Your task to perform on an android device: see tabs open on other devices in the chrome app Image 0: 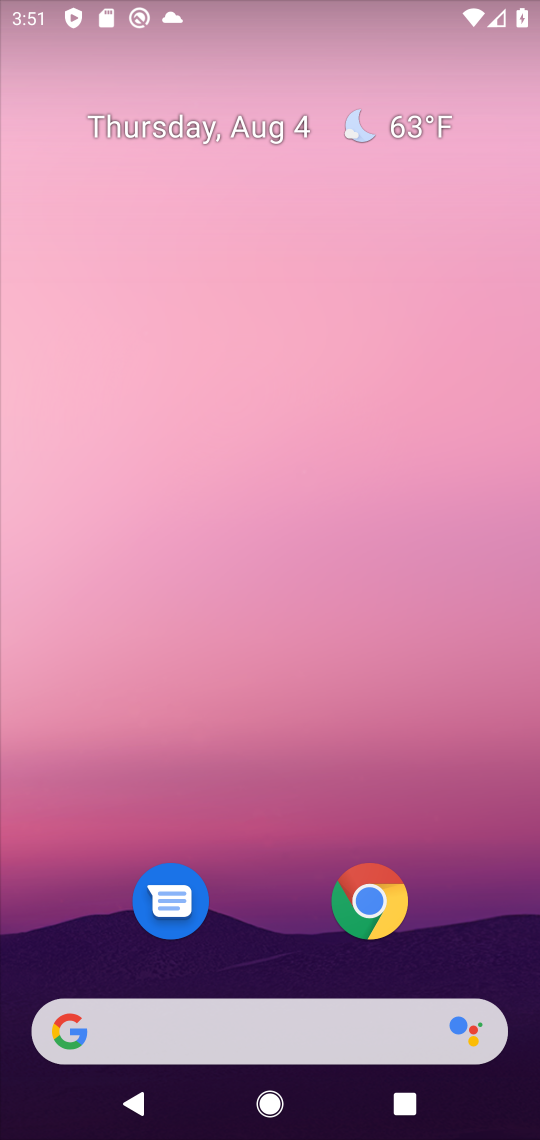
Step 0: drag from (259, 872) to (526, 9)
Your task to perform on an android device: see tabs open on other devices in the chrome app Image 1: 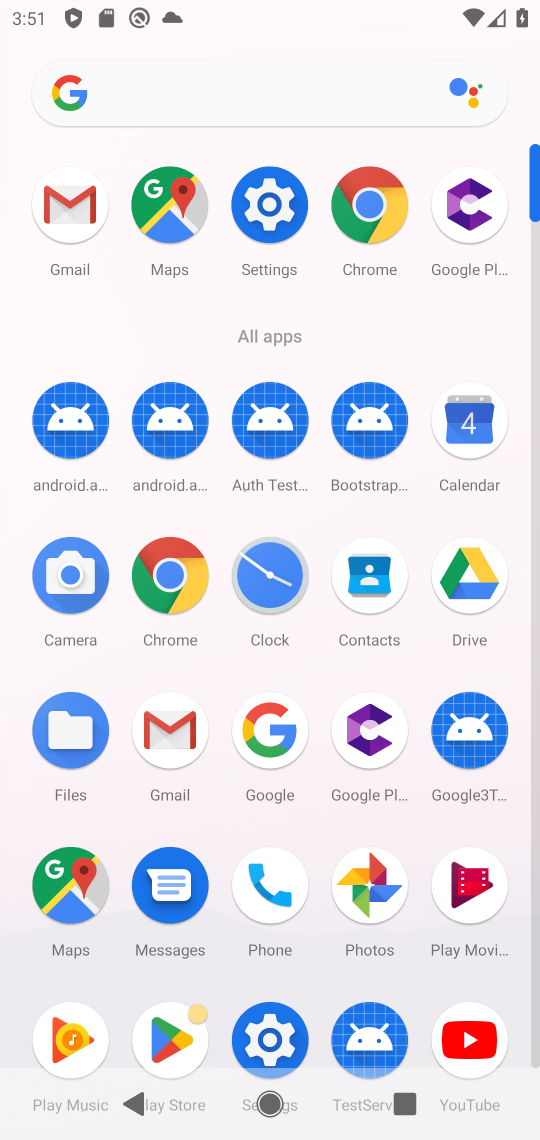
Step 1: click (185, 556)
Your task to perform on an android device: see tabs open on other devices in the chrome app Image 2: 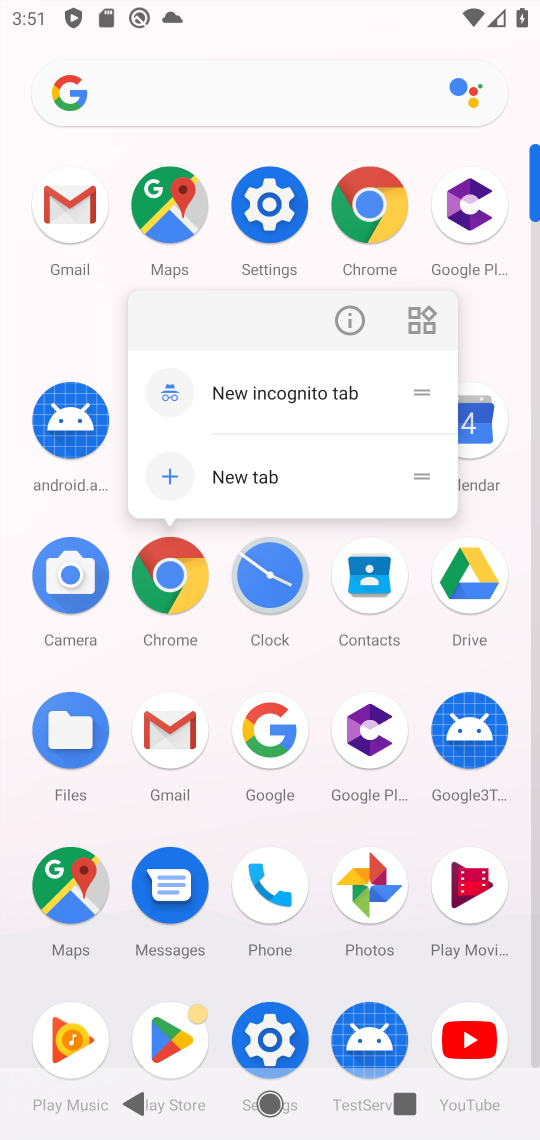
Step 2: click (164, 561)
Your task to perform on an android device: see tabs open on other devices in the chrome app Image 3: 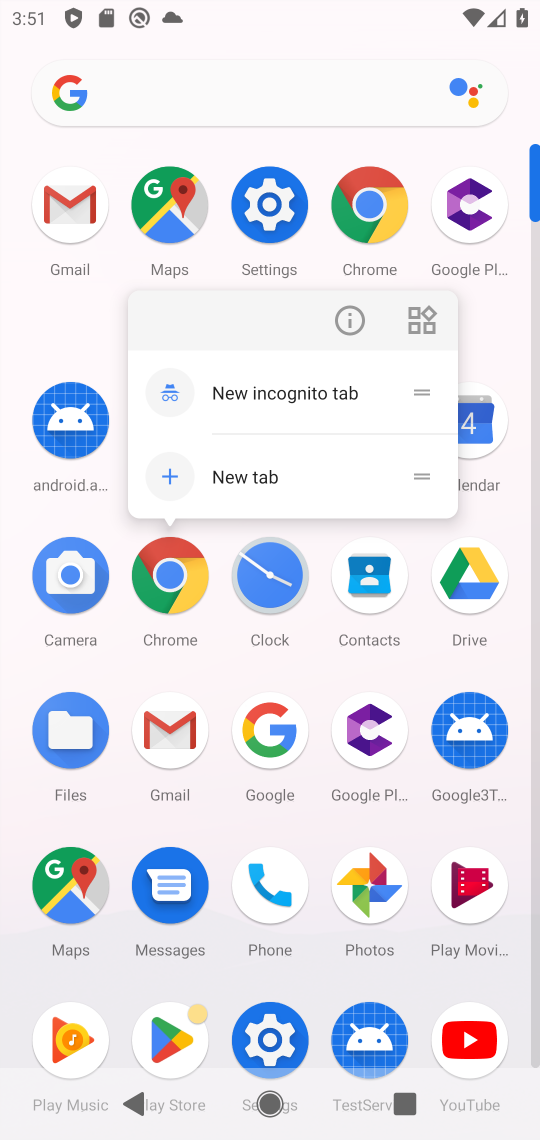
Step 3: click (168, 582)
Your task to perform on an android device: see tabs open on other devices in the chrome app Image 4: 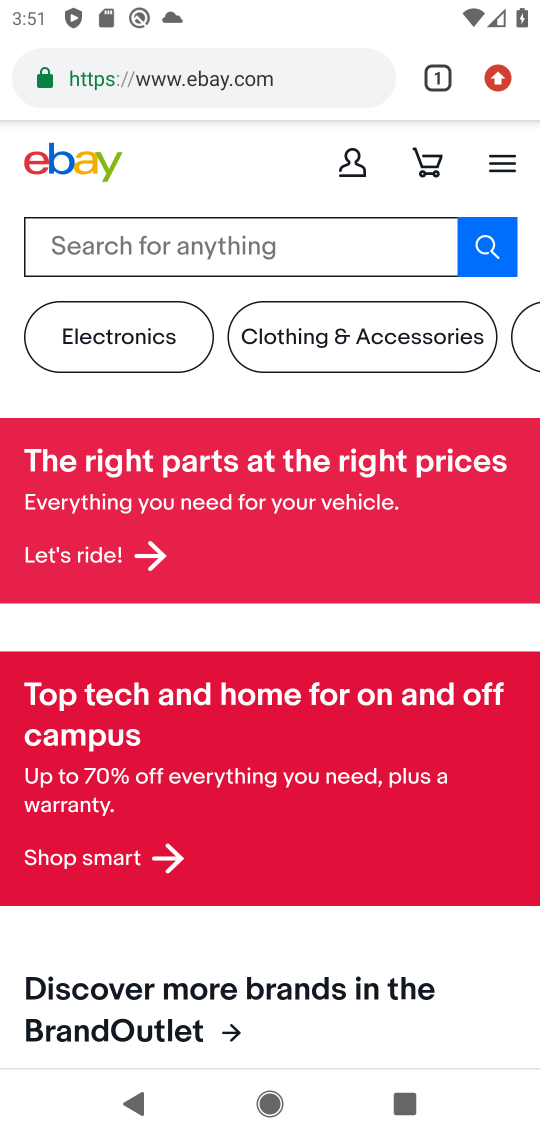
Step 4: click (497, 85)
Your task to perform on an android device: see tabs open on other devices in the chrome app Image 5: 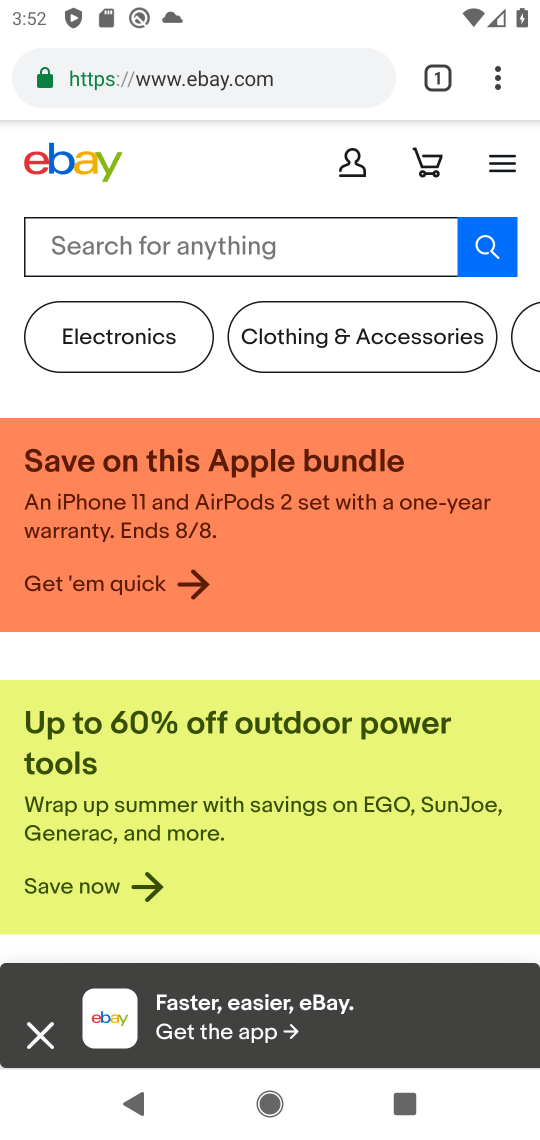
Step 5: task complete